Your task to perform on an android device: Open network settings Image 0: 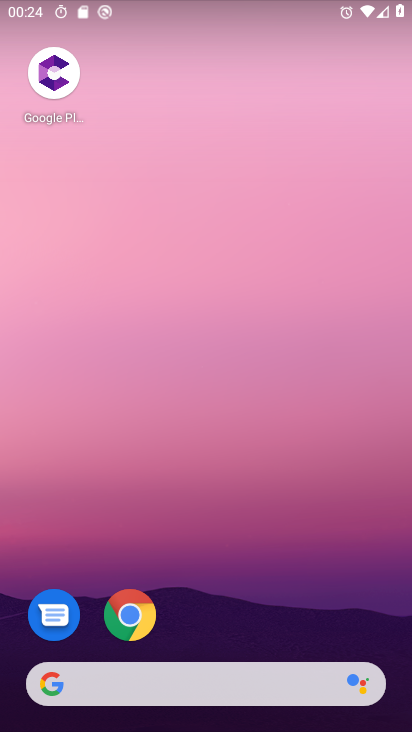
Step 0: drag from (251, 719) to (187, 163)
Your task to perform on an android device: Open network settings Image 1: 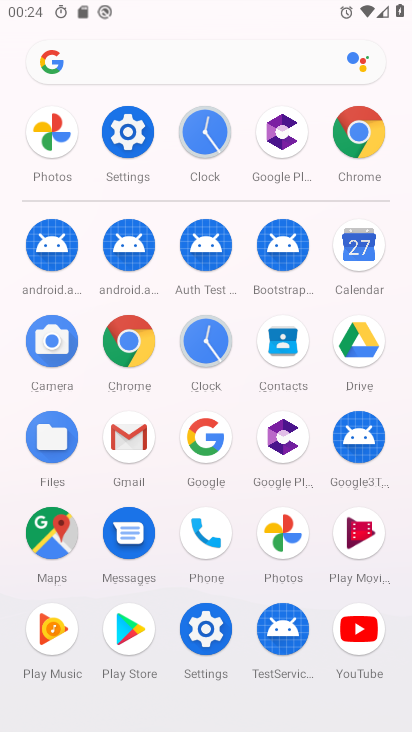
Step 1: click (130, 129)
Your task to perform on an android device: Open network settings Image 2: 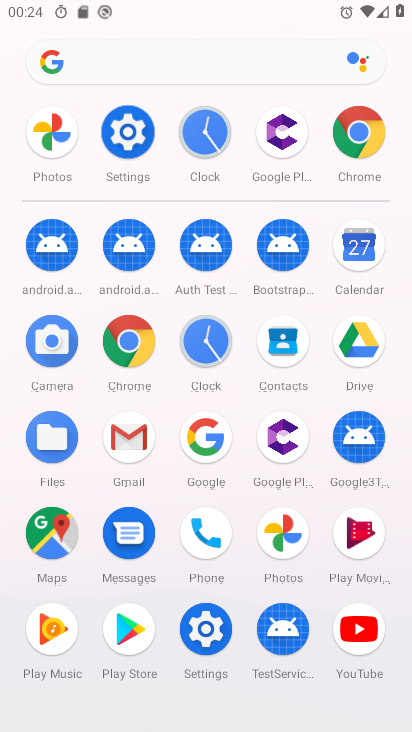
Step 2: click (133, 133)
Your task to perform on an android device: Open network settings Image 3: 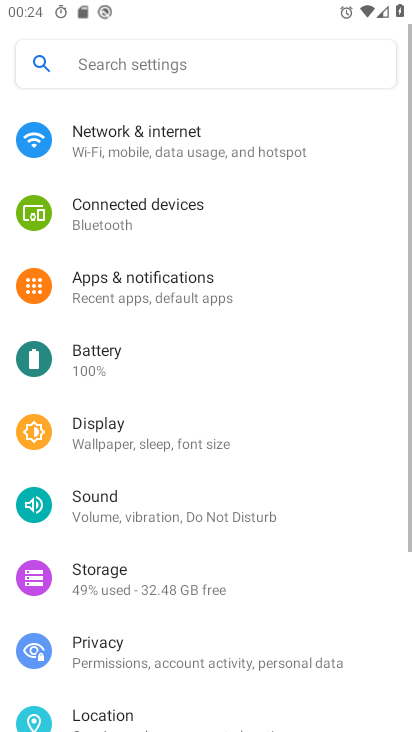
Step 3: click (138, 138)
Your task to perform on an android device: Open network settings Image 4: 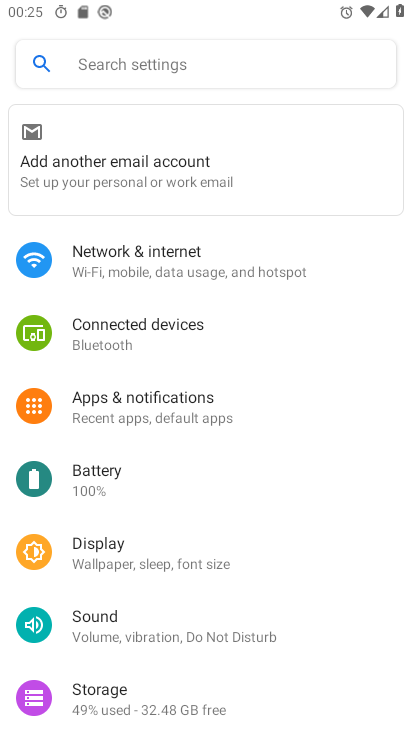
Step 4: click (131, 270)
Your task to perform on an android device: Open network settings Image 5: 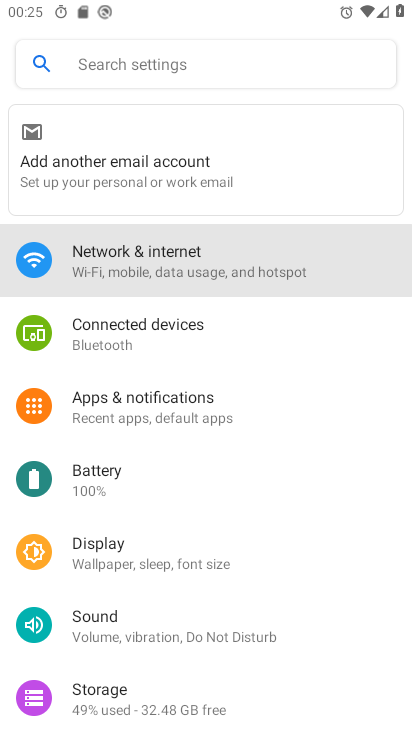
Step 5: click (135, 264)
Your task to perform on an android device: Open network settings Image 6: 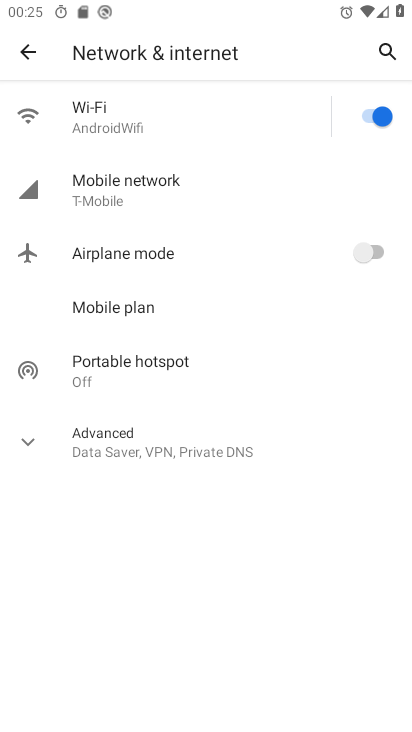
Step 6: click (147, 256)
Your task to perform on an android device: Open network settings Image 7: 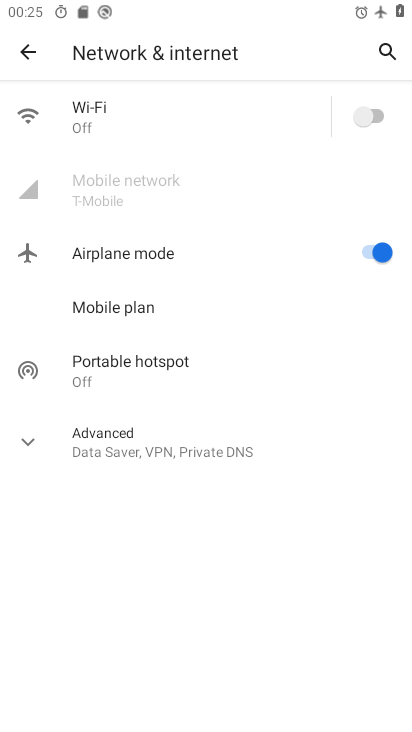
Step 7: click (375, 116)
Your task to perform on an android device: Open network settings Image 8: 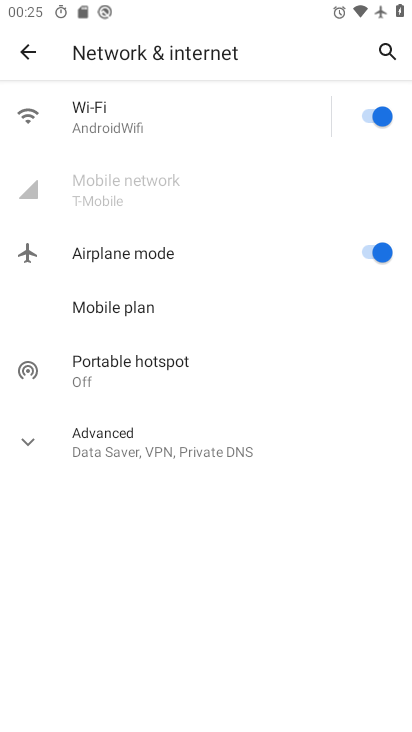
Step 8: task complete